Your task to perform on an android device: Open wifi settings Image 0: 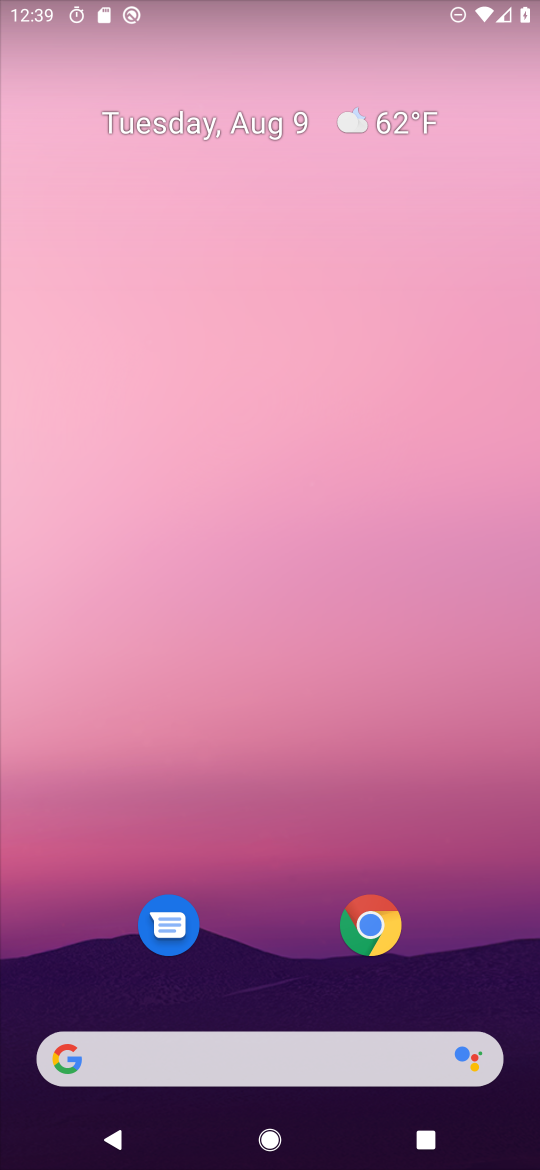
Step 0: drag from (230, 939) to (283, 174)
Your task to perform on an android device: Open wifi settings Image 1: 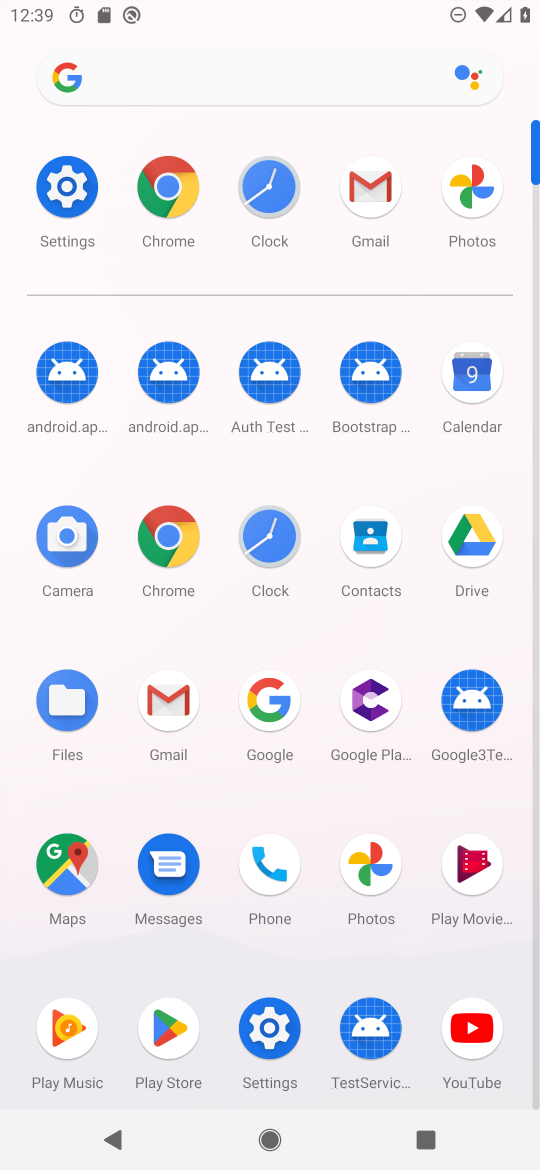
Step 1: click (80, 194)
Your task to perform on an android device: Open wifi settings Image 2: 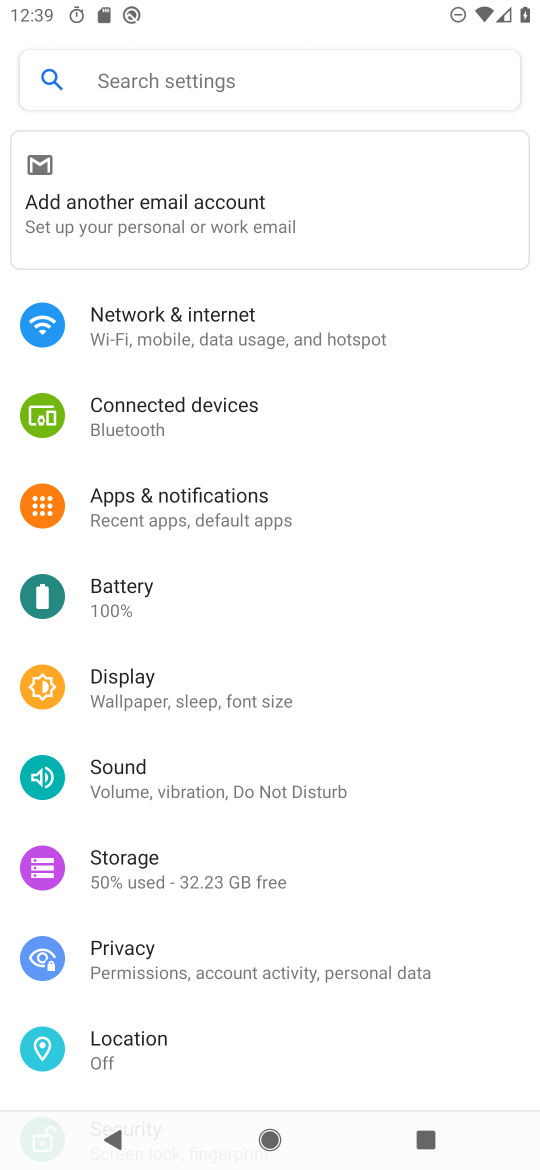
Step 2: click (166, 304)
Your task to perform on an android device: Open wifi settings Image 3: 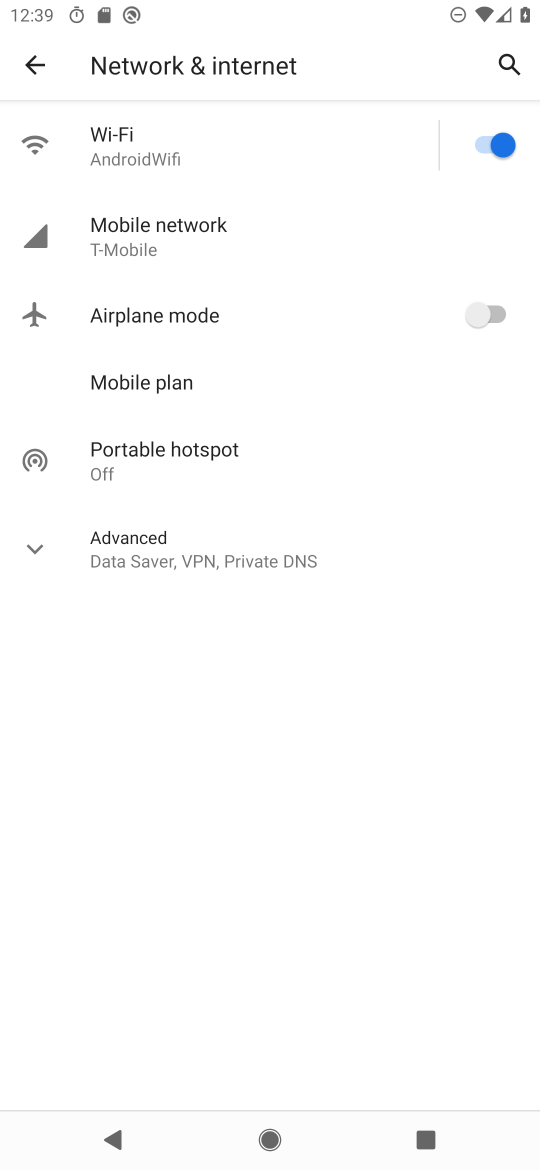
Step 3: click (166, 133)
Your task to perform on an android device: Open wifi settings Image 4: 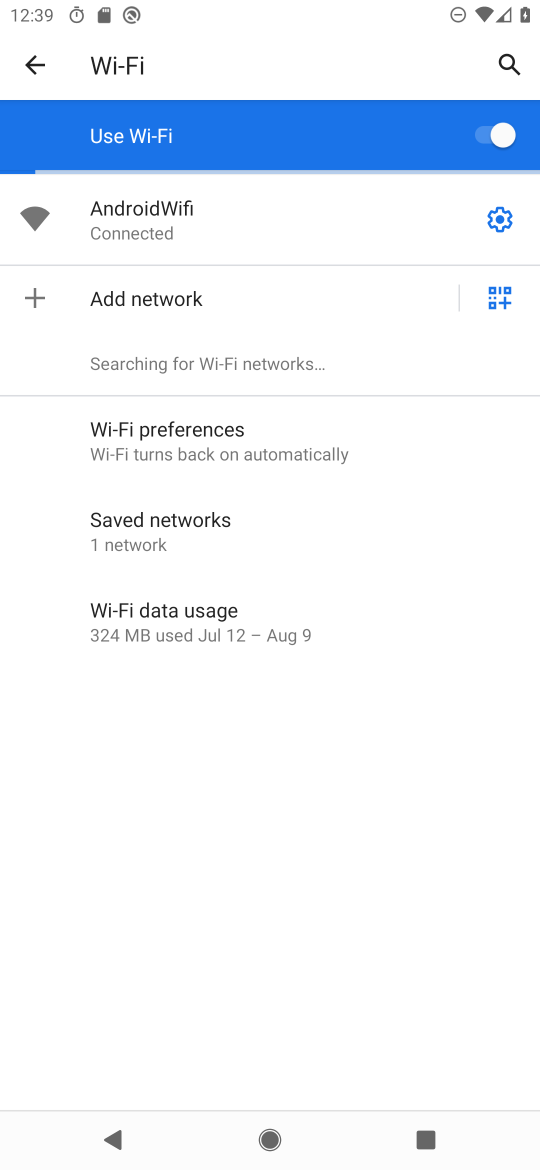
Step 4: click (516, 212)
Your task to perform on an android device: Open wifi settings Image 5: 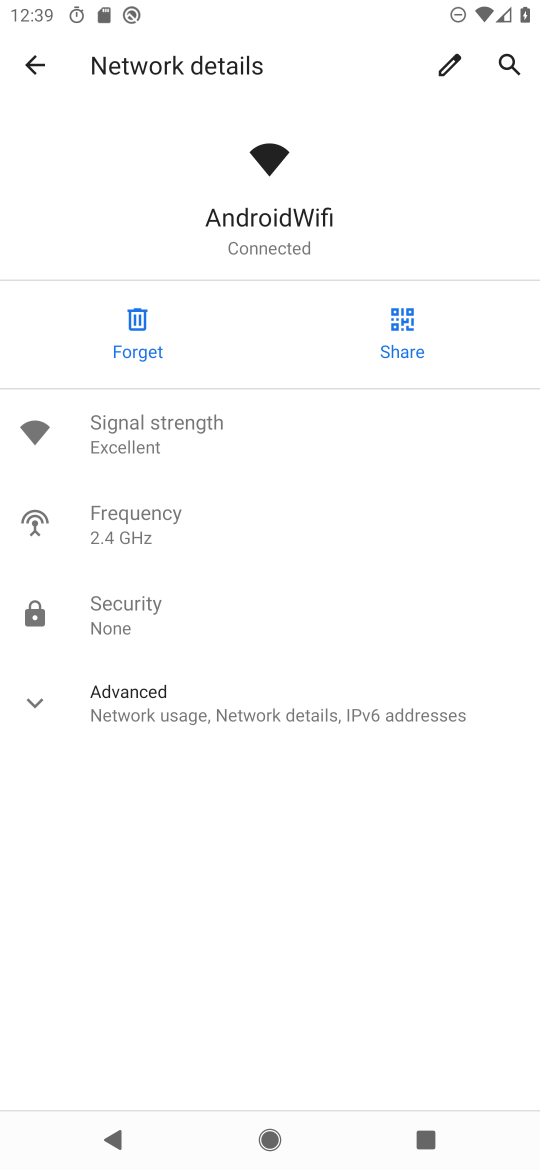
Step 5: task complete